Your task to perform on an android device: Go to ESPN.com Image 0: 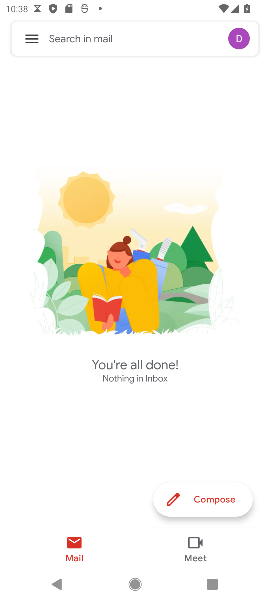
Step 0: press home button
Your task to perform on an android device: Go to ESPN.com Image 1: 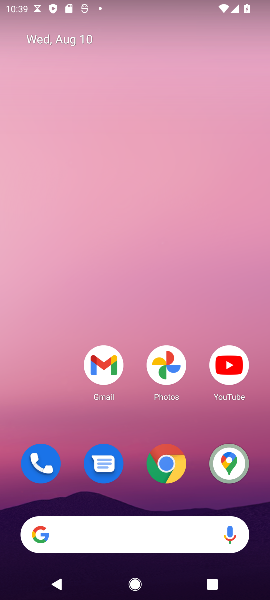
Step 1: click (83, 536)
Your task to perform on an android device: Go to ESPN.com Image 2: 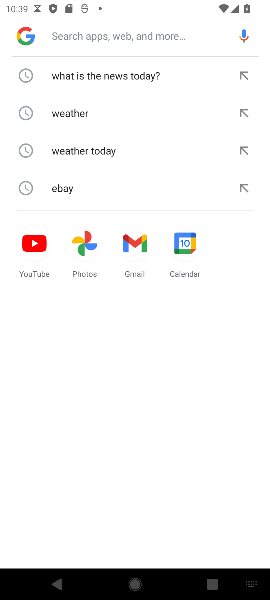
Step 2: type "ESPN.com"
Your task to perform on an android device: Go to ESPN.com Image 3: 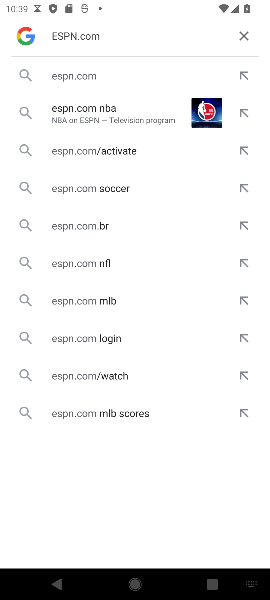
Step 3: click (79, 86)
Your task to perform on an android device: Go to ESPN.com Image 4: 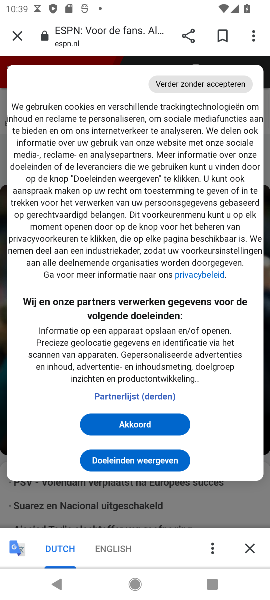
Step 4: task complete